Your task to perform on an android device: Go to display settings Image 0: 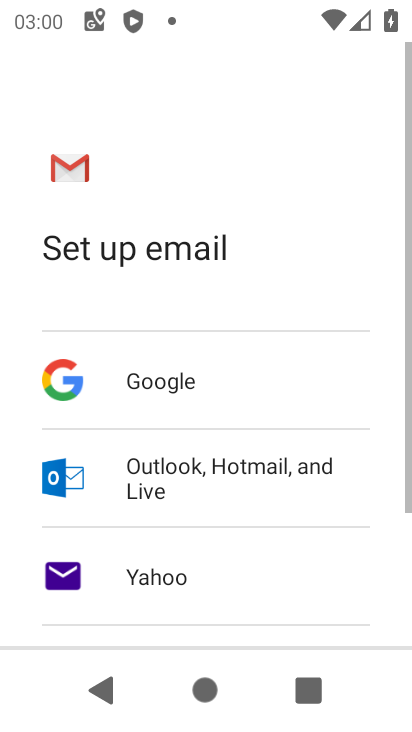
Step 0: press home button
Your task to perform on an android device: Go to display settings Image 1: 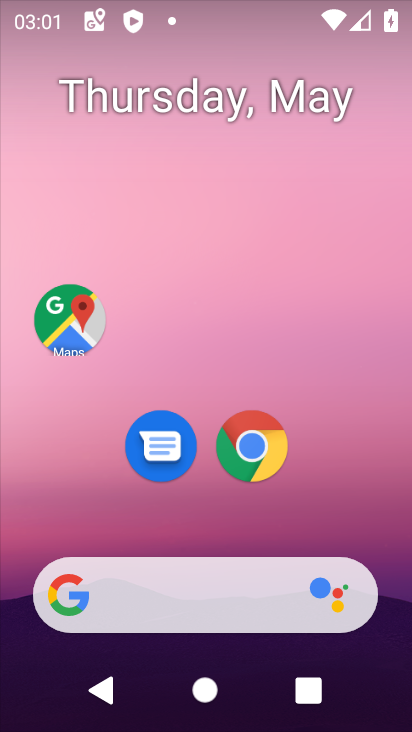
Step 1: drag from (323, 539) to (273, 8)
Your task to perform on an android device: Go to display settings Image 2: 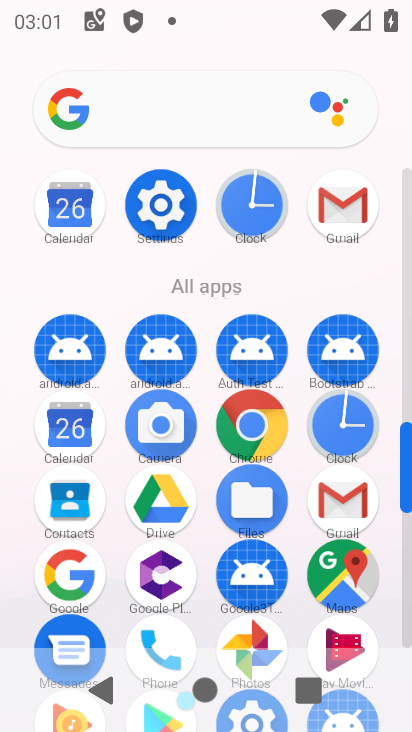
Step 2: click (154, 209)
Your task to perform on an android device: Go to display settings Image 3: 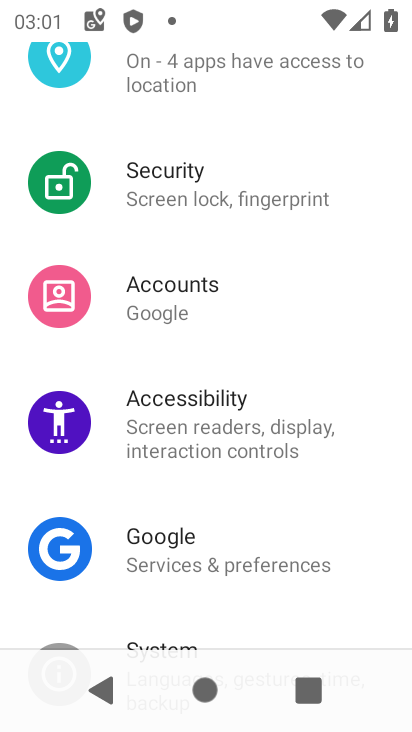
Step 3: drag from (272, 284) to (261, 529)
Your task to perform on an android device: Go to display settings Image 4: 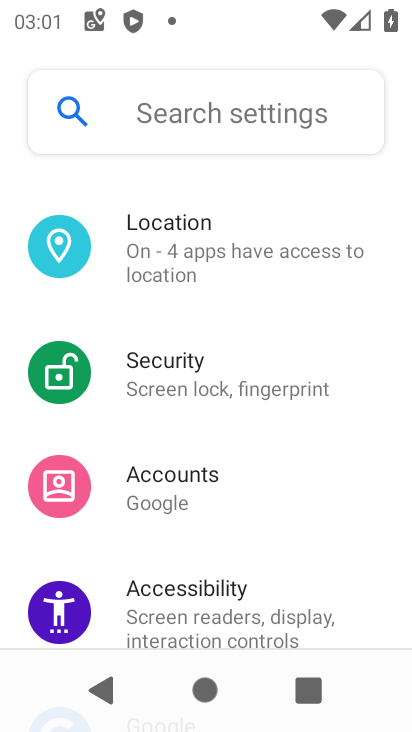
Step 4: drag from (262, 256) to (245, 498)
Your task to perform on an android device: Go to display settings Image 5: 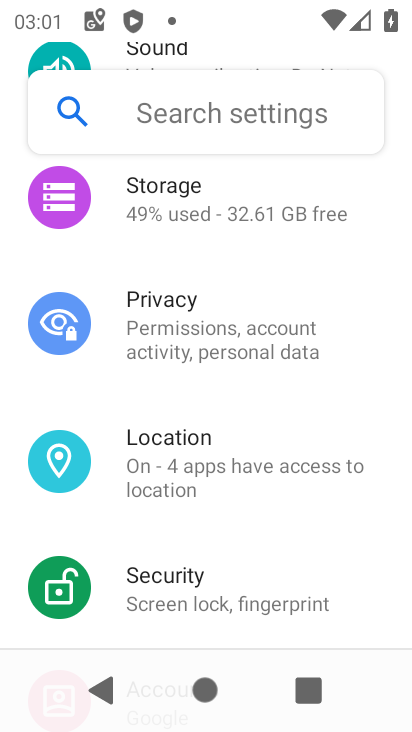
Step 5: drag from (224, 296) to (221, 465)
Your task to perform on an android device: Go to display settings Image 6: 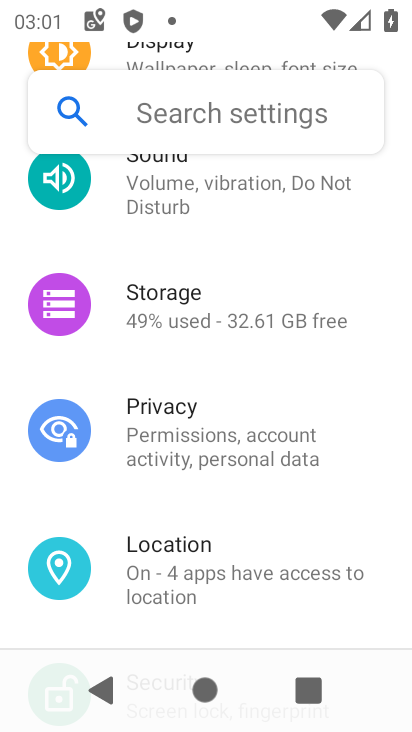
Step 6: drag from (253, 284) to (249, 502)
Your task to perform on an android device: Go to display settings Image 7: 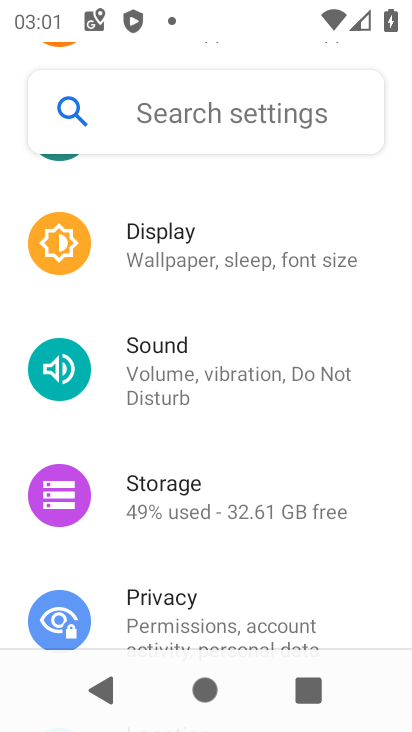
Step 7: click (172, 259)
Your task to perform on an android device: Go to display settings Image 8: 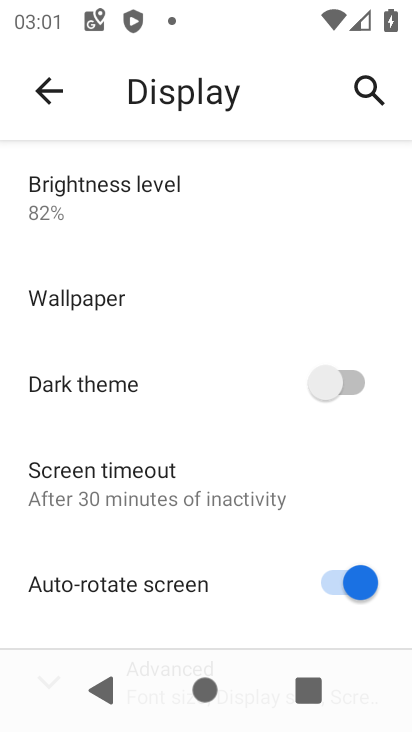
Step 8: task complete